Your task to perform on an android device: turn off improve location accuracy Image 0: 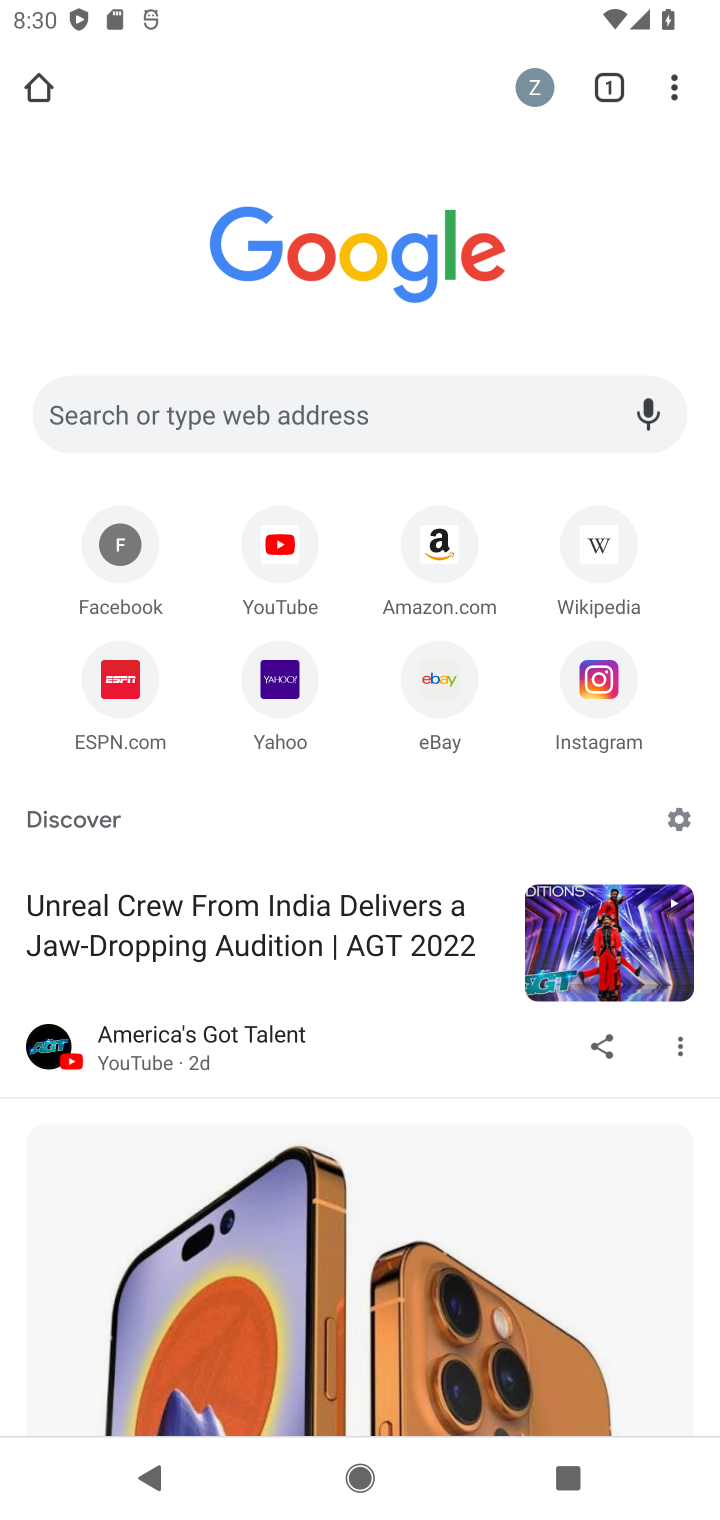
Step 0: drag from (375, 1057) to (671, 1512)
Your task to perform on an android device: turn off improve location accuracy Image 1: 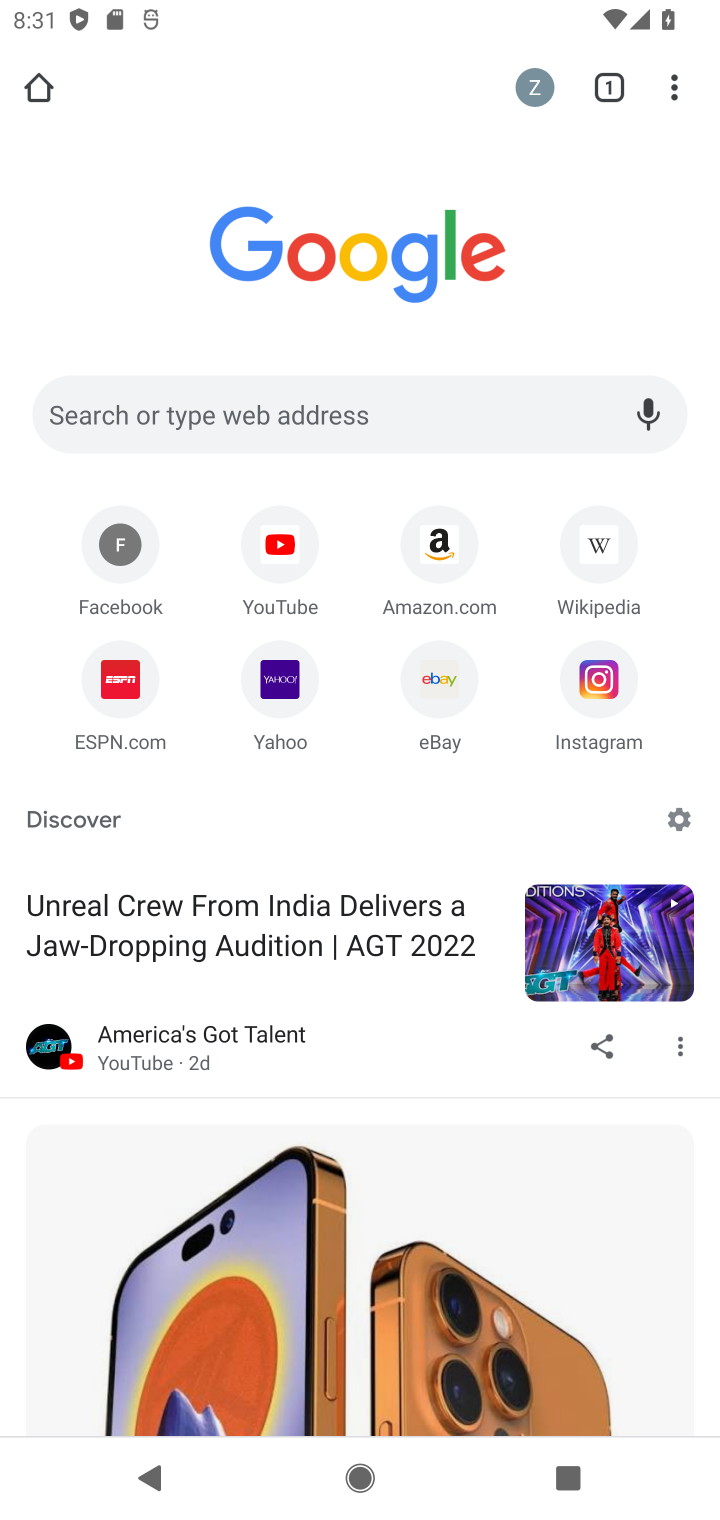
Step 1: drag from (673, 83) to (449, 847)
Your task to perform on an android device: turn off improve location accuracy Image 2: 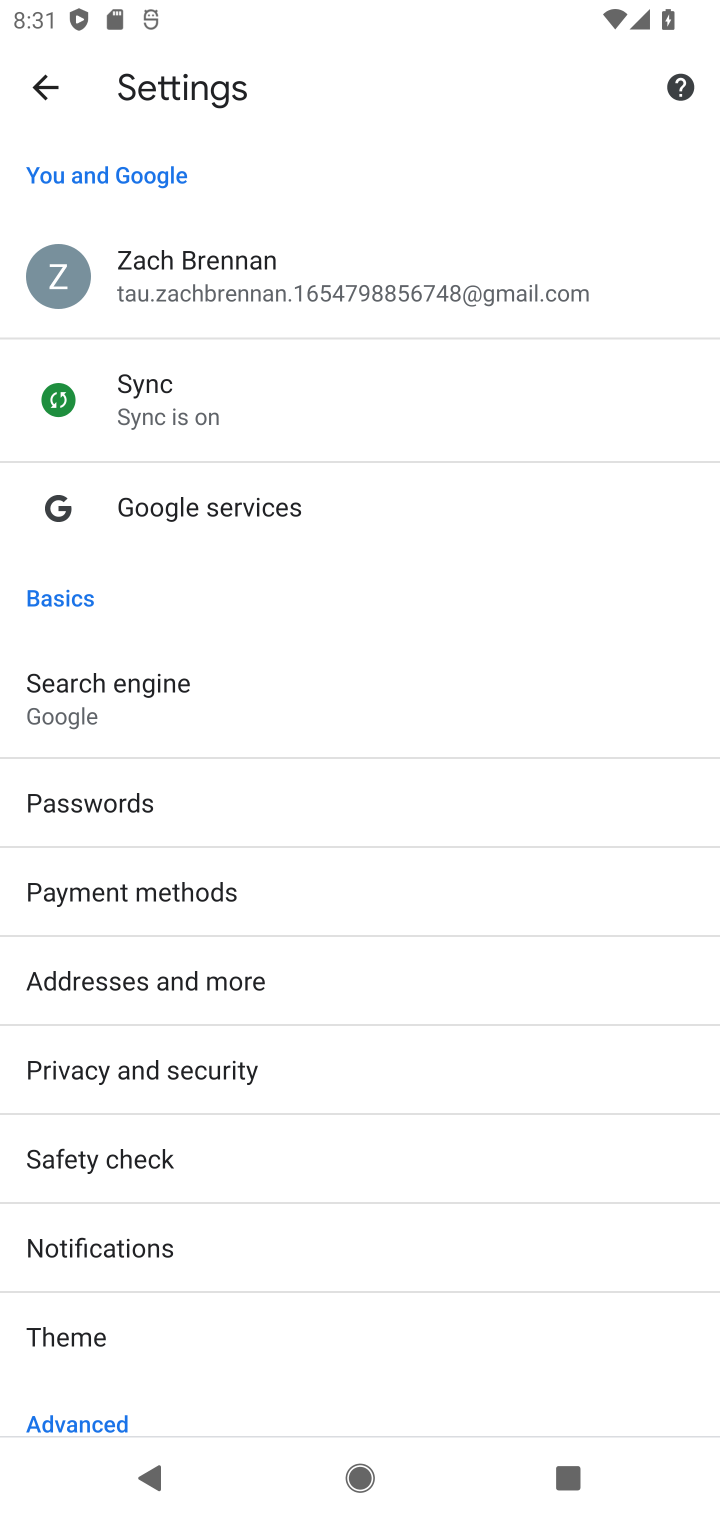
Step 2: press home button
Your task to perform on an android device: turn off improve location accuracy Image 3: 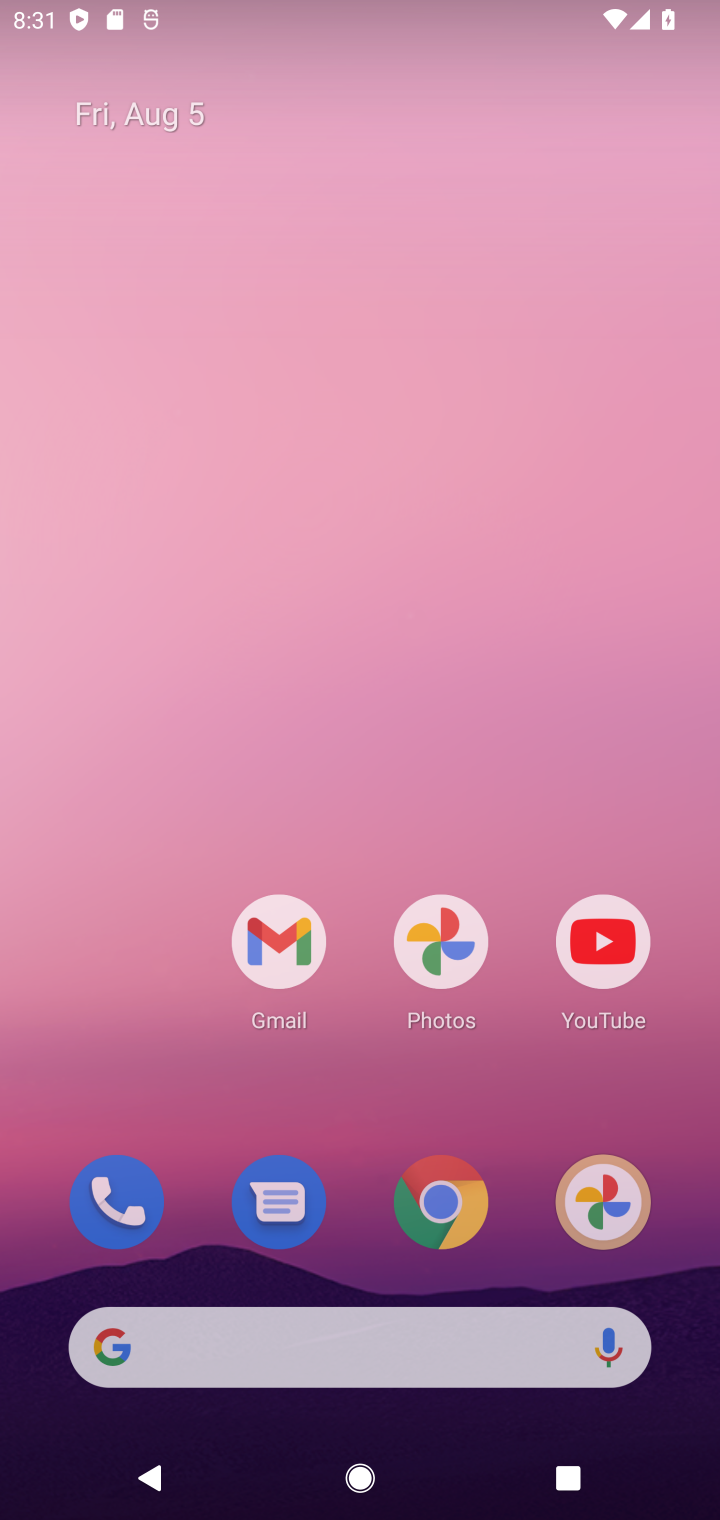
Step 3: drag from (313, 1222) to (458, 352)
Your task to perform on an android device: turn off improve location accuracy Image 4: 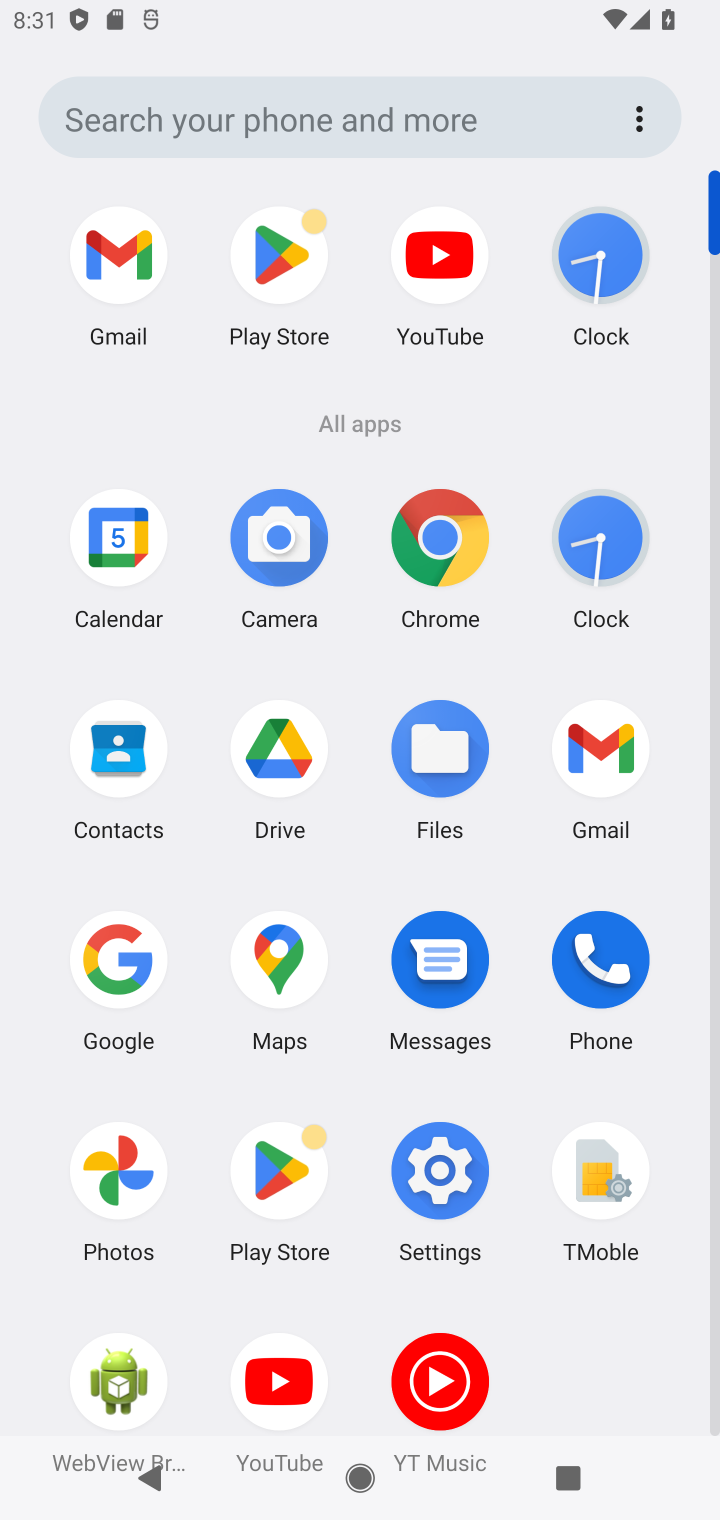
Step 4: click (406, 1156)
Your task to perform on an android device: turn off improve location accuracy Image 5: 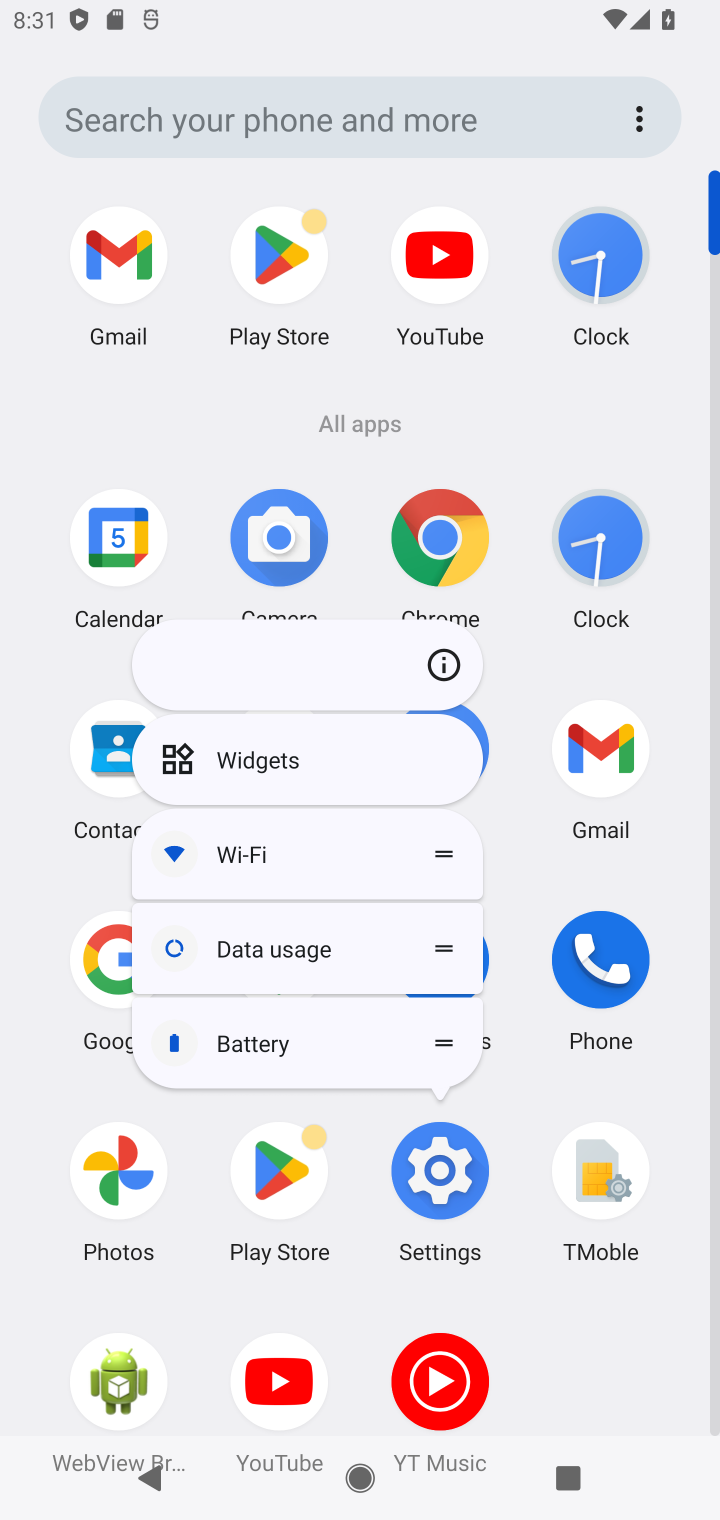
Step 5: click (440, 669)
Your task to perform on an android device: turn off improve location accuracy Image 6: 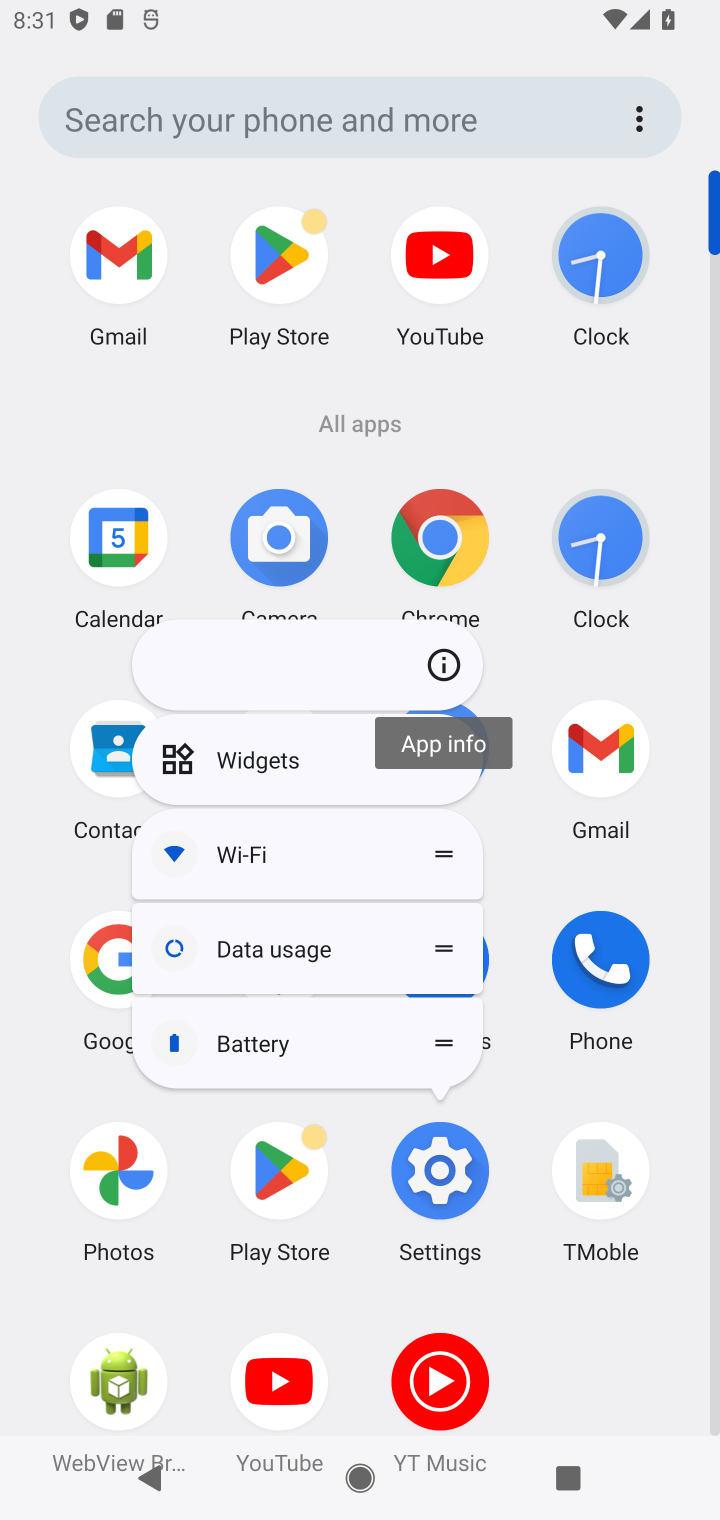
Step 6: click (433, 665)
Your task to perform on an android device: turn off improve location accuracy Image 7: 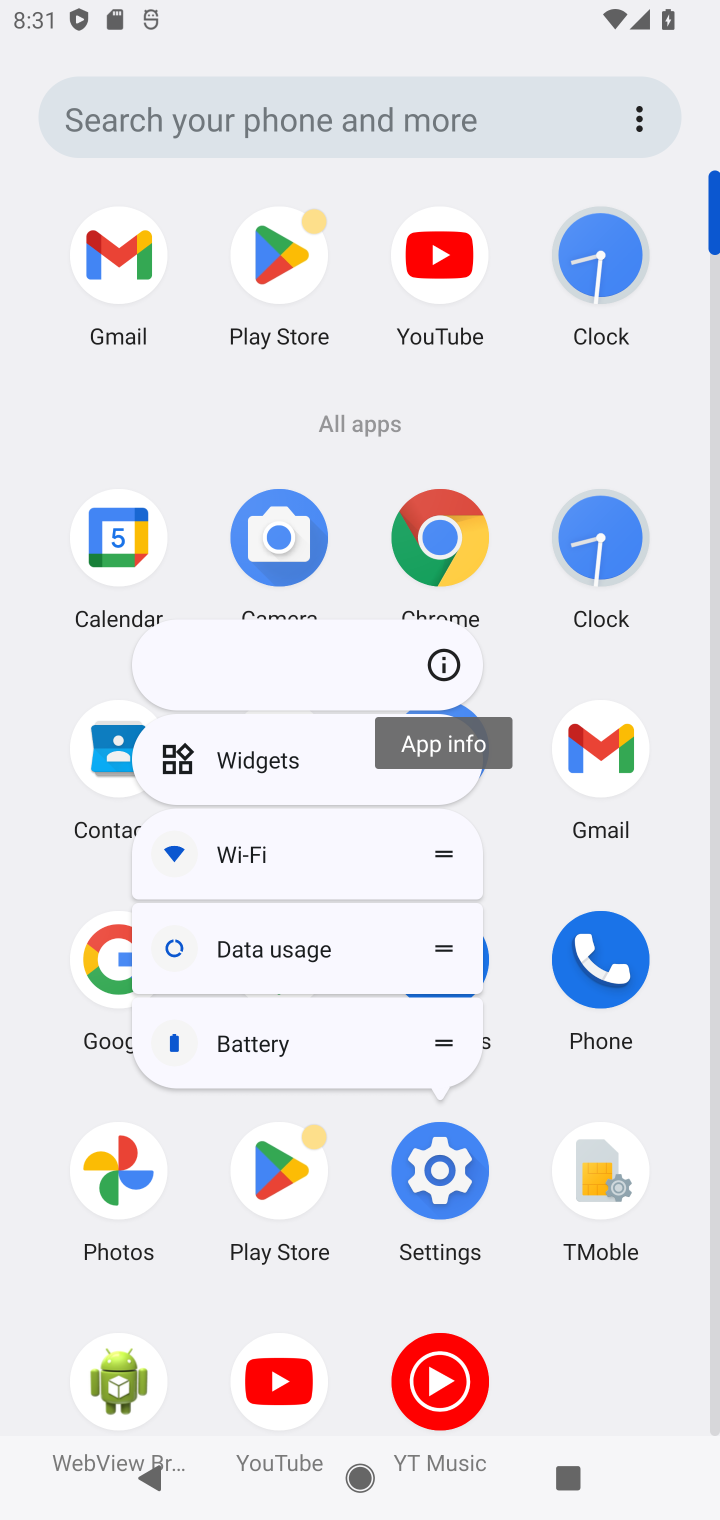
Step 7: click (435, 663)
Your task to perform on an android device: turn off improve location accuracy Image 8: 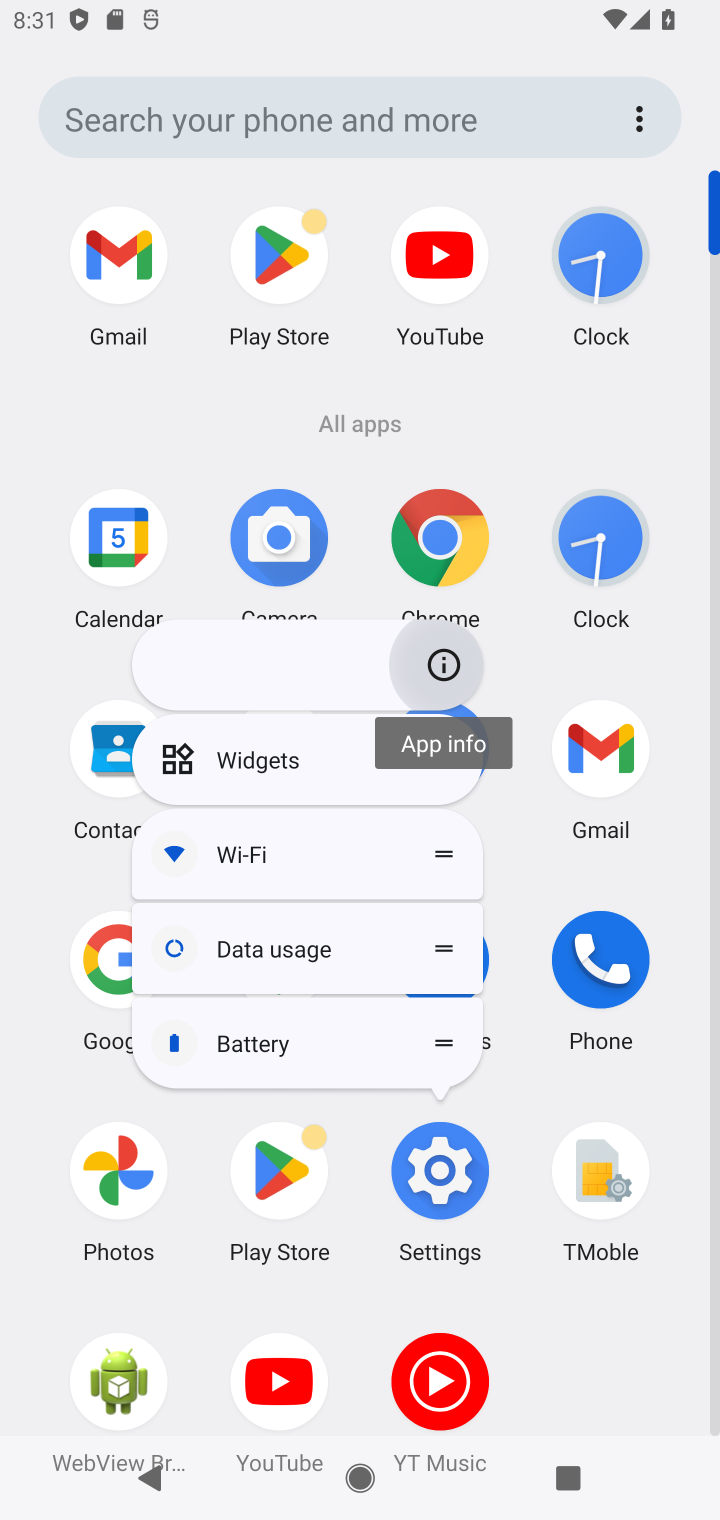
Step 8: click (435, 663)
Your task to perform on an android device: turn off improve location accuracy Image 9: 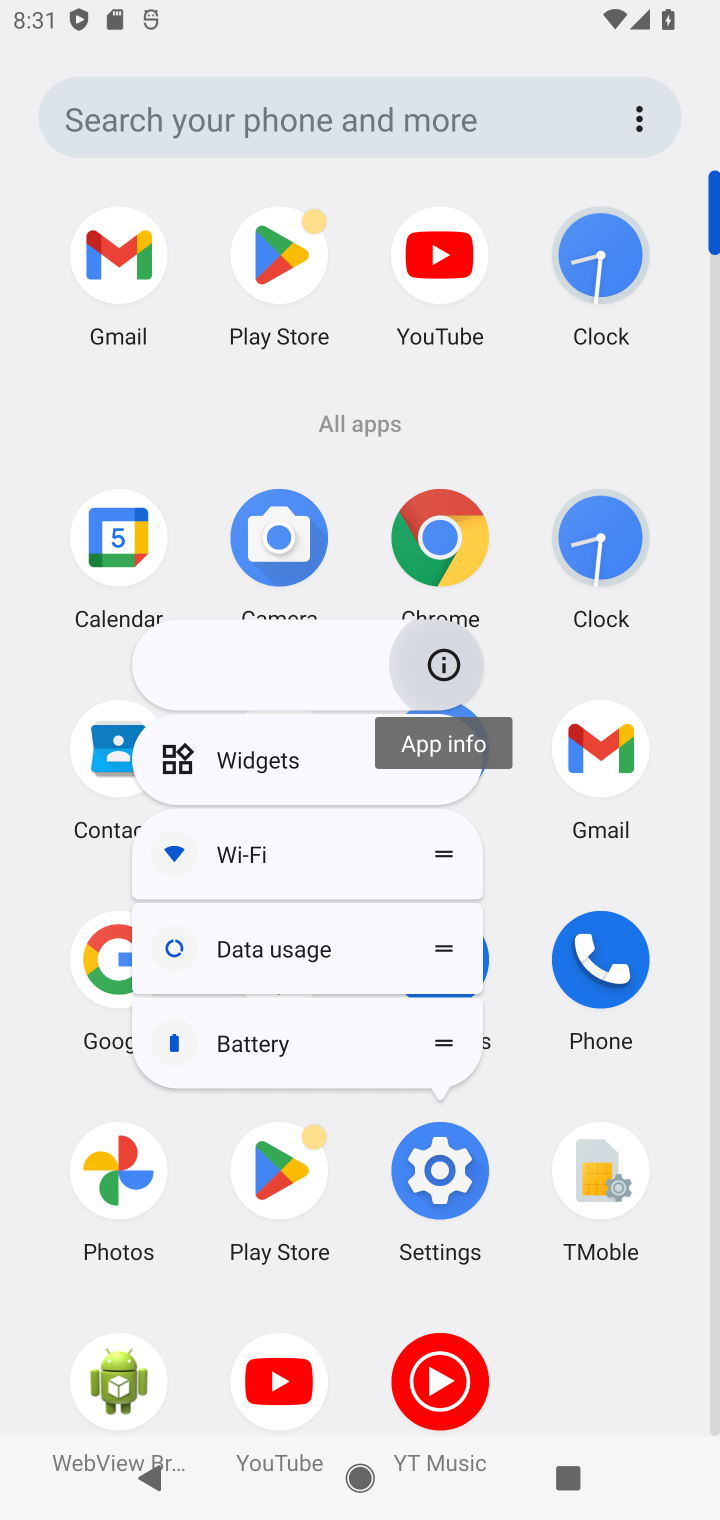
Step 9: click (435, 663)
Your task to perform on an android device: turn off improve location accuracy Image 10: 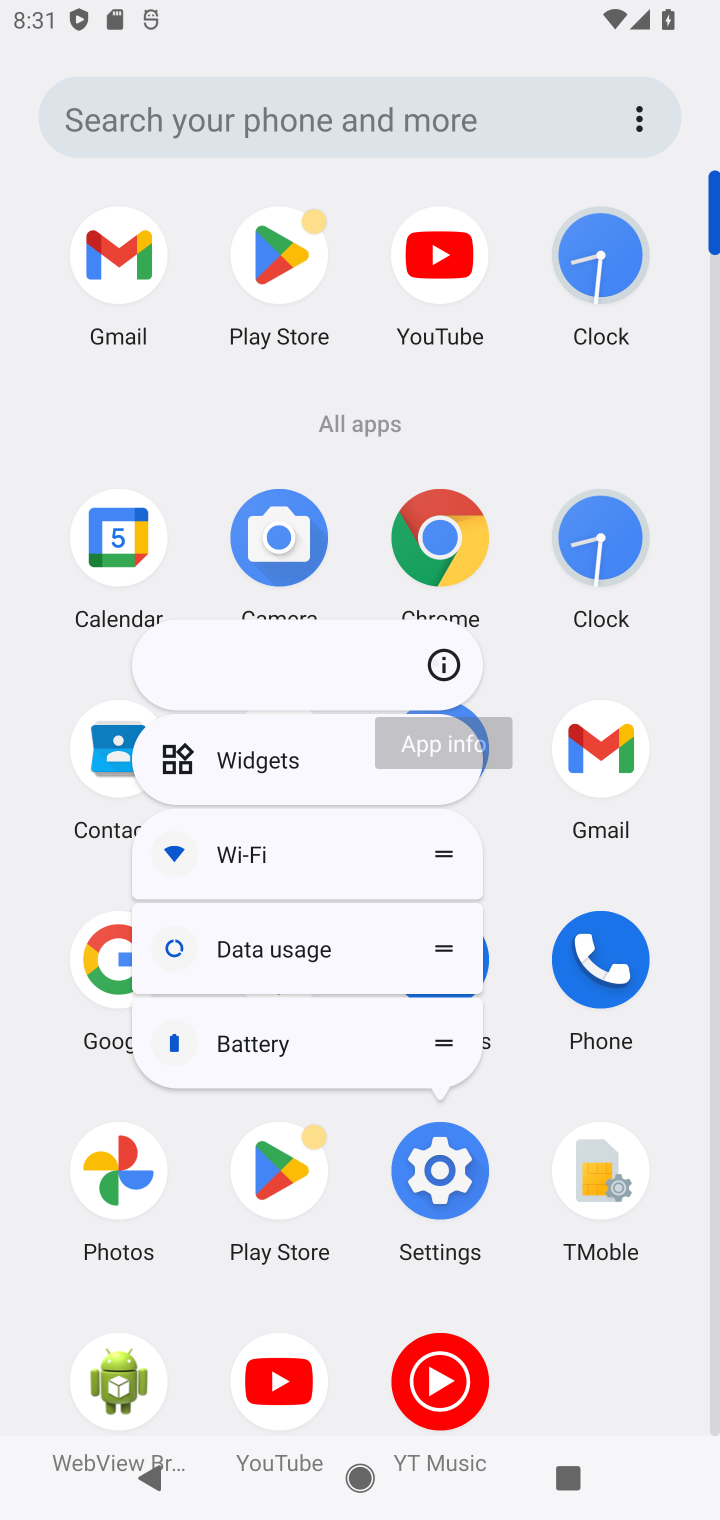
Step 10: click (435, 663)
Your task to perform on an android device: turn off improve location accuracy Image 11: 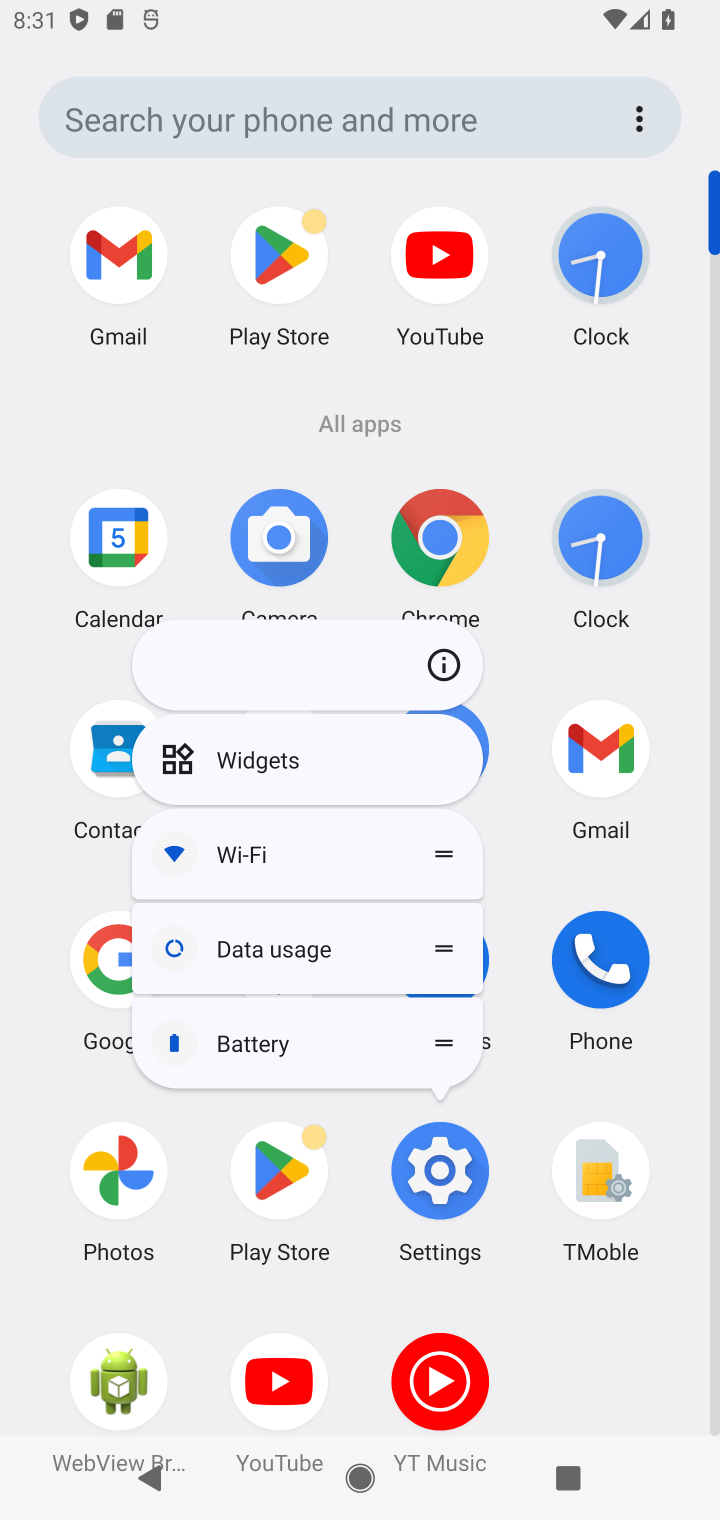
Step 11: click (433, 1166)
Your task to perform on an android device: turn off improve location accuracy Image 12: 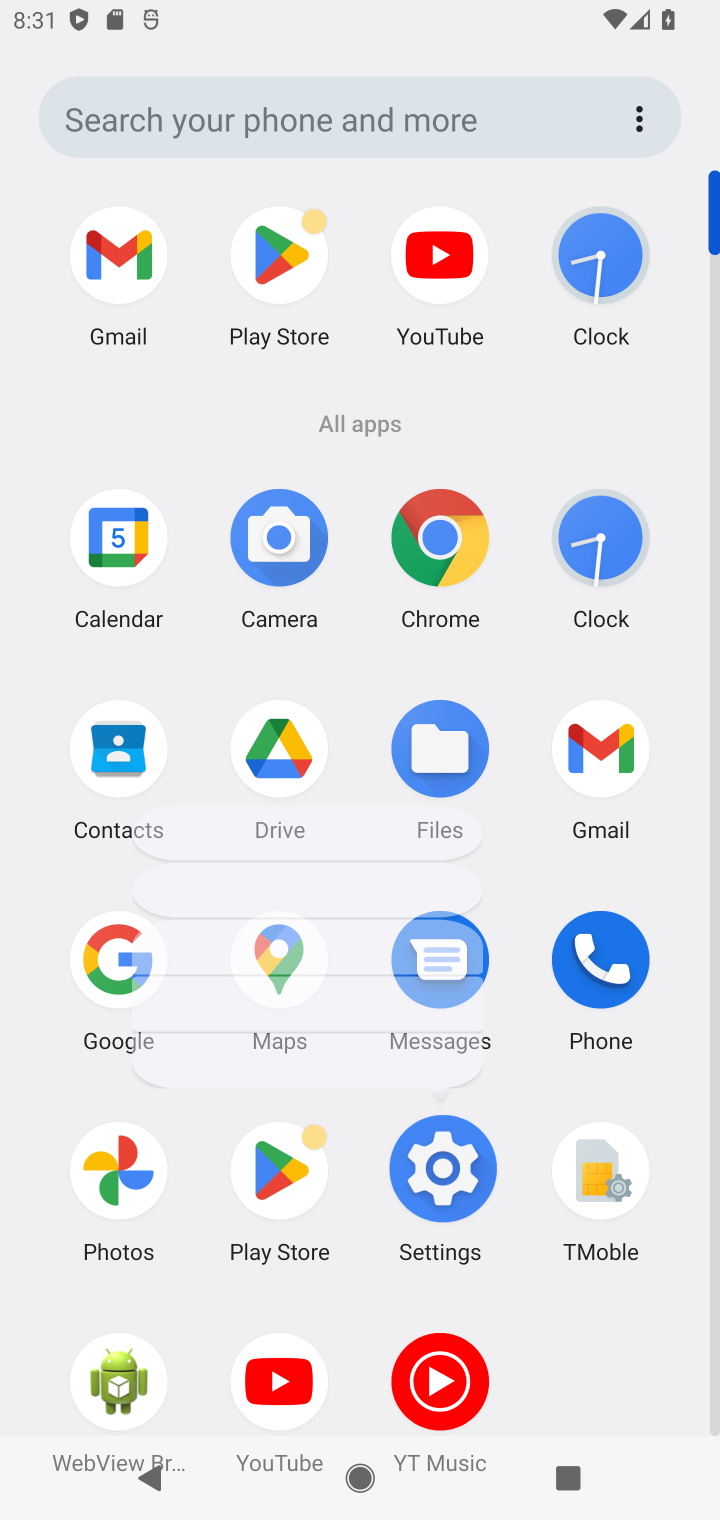
Step 12: click (438, 1159)
Your task to perform on an android device: turn off improve location accuracy Image 13: 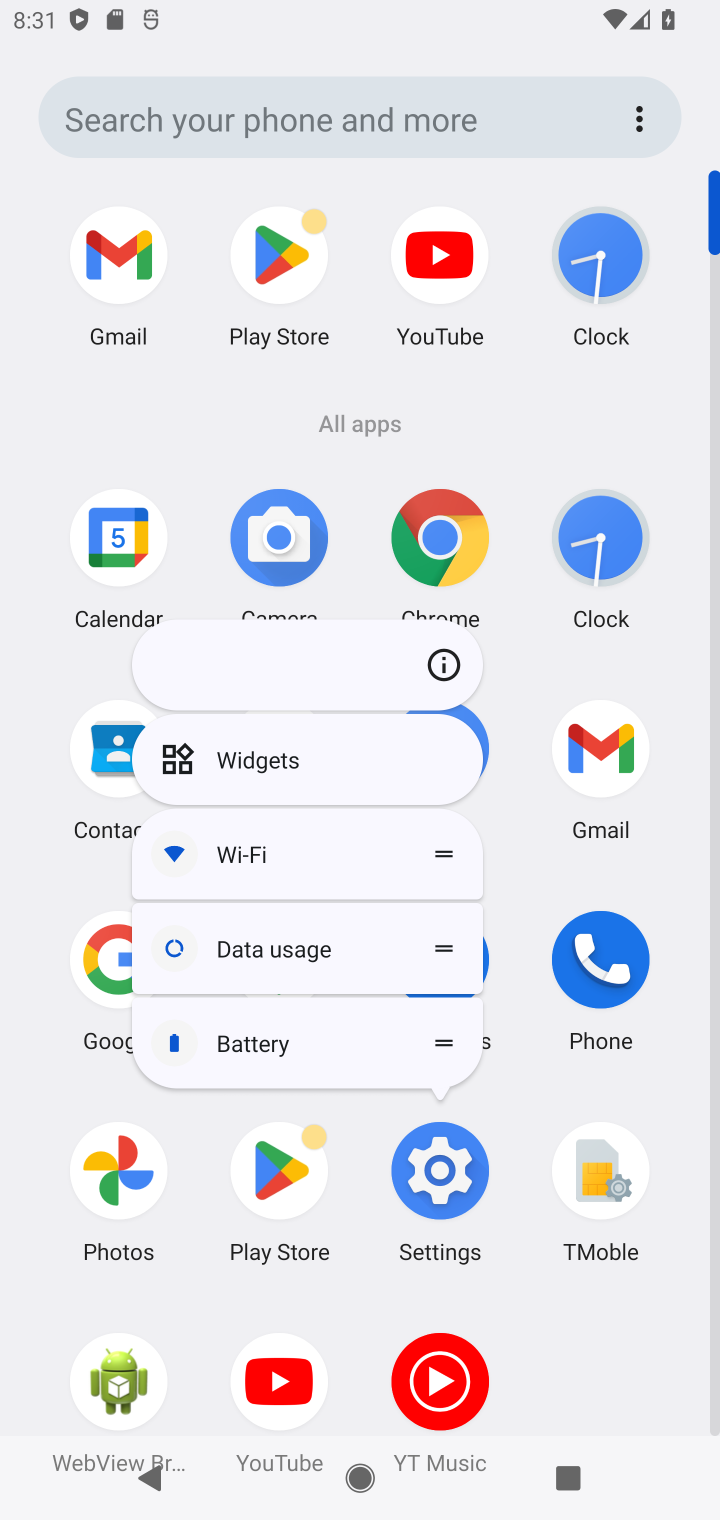
Step 13: click (441, 651)
Your task to perform on an android device: turn off improve location accuracy Image 14: 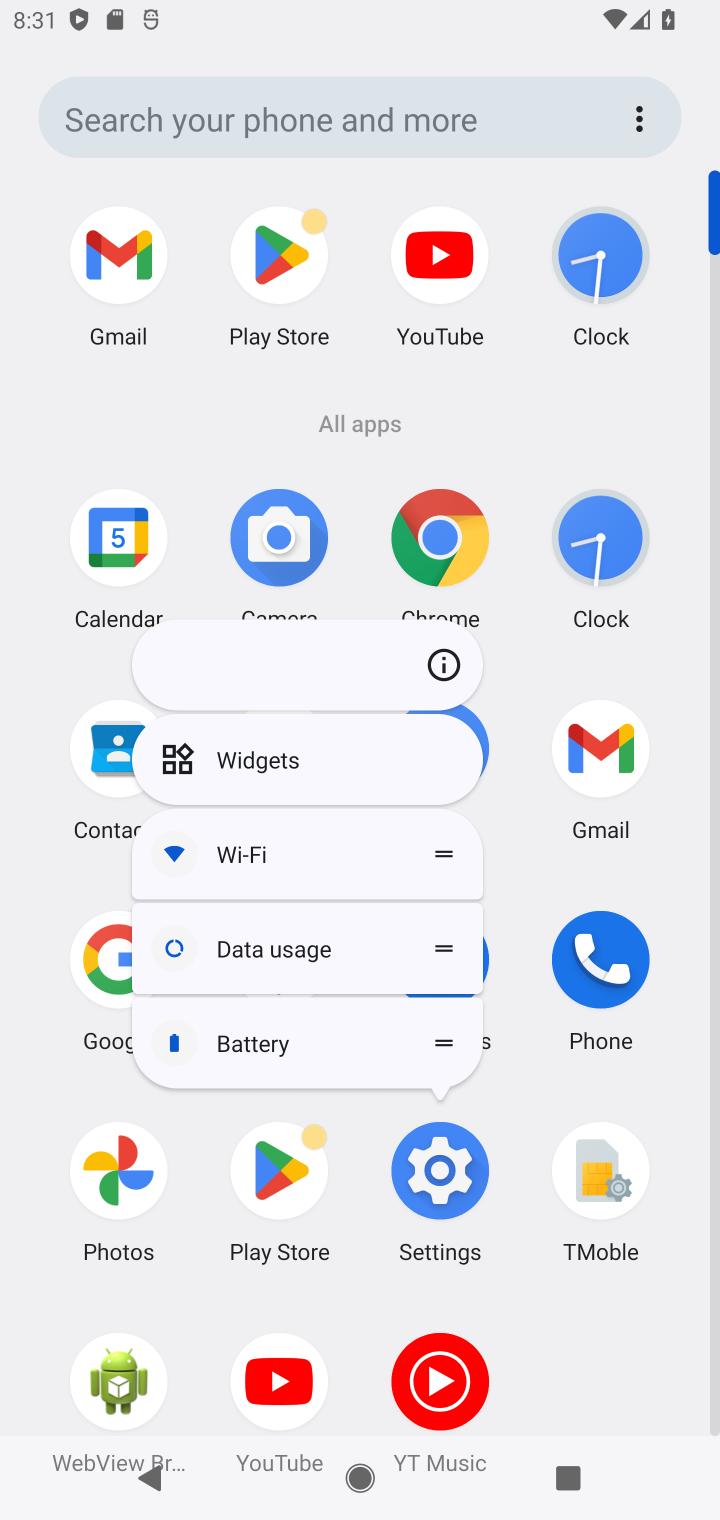
Step 14: click (440, 674)
Your task to perform on an android device: turn off improve location accuracy Image 15: 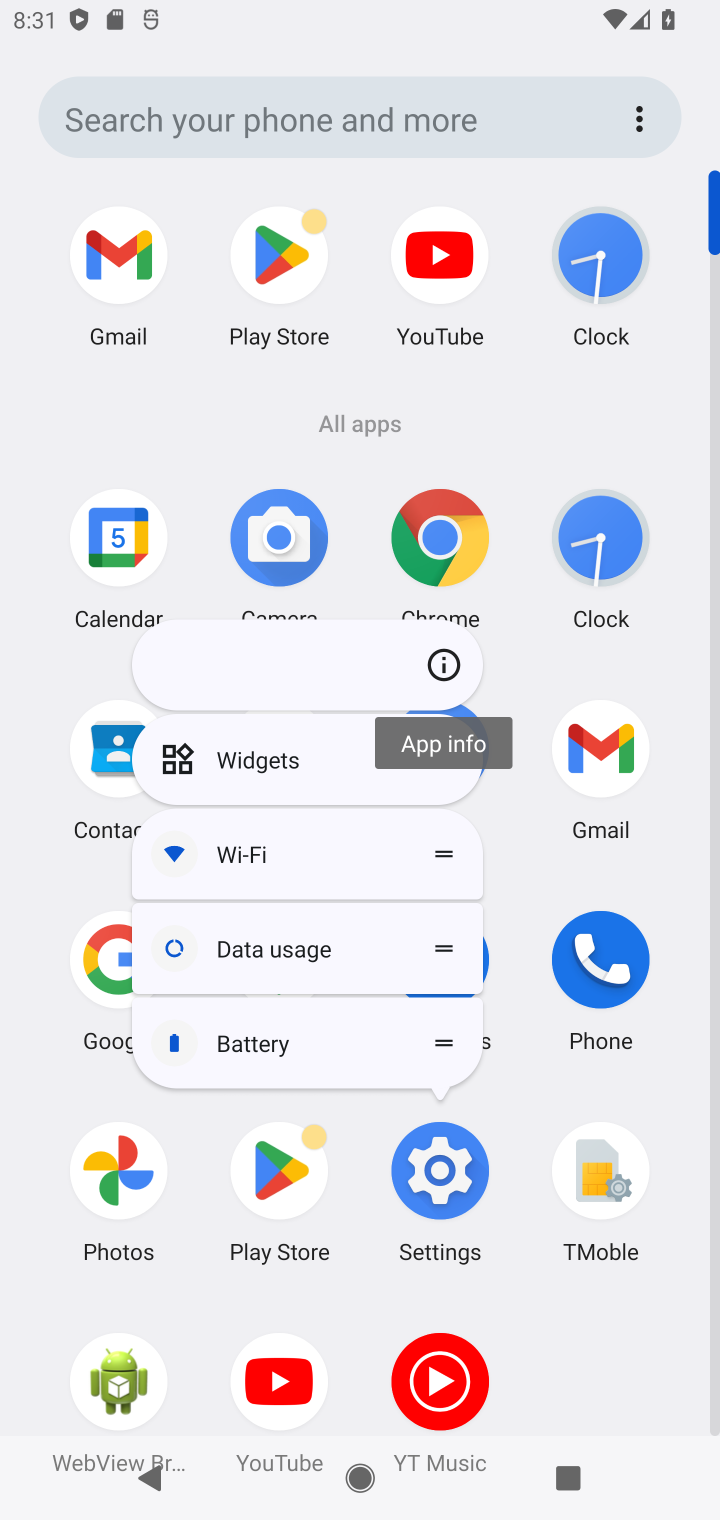
Step 15: click (430, 665)
Your task to perform on an android device: turn off improve location accuracy Image 16: 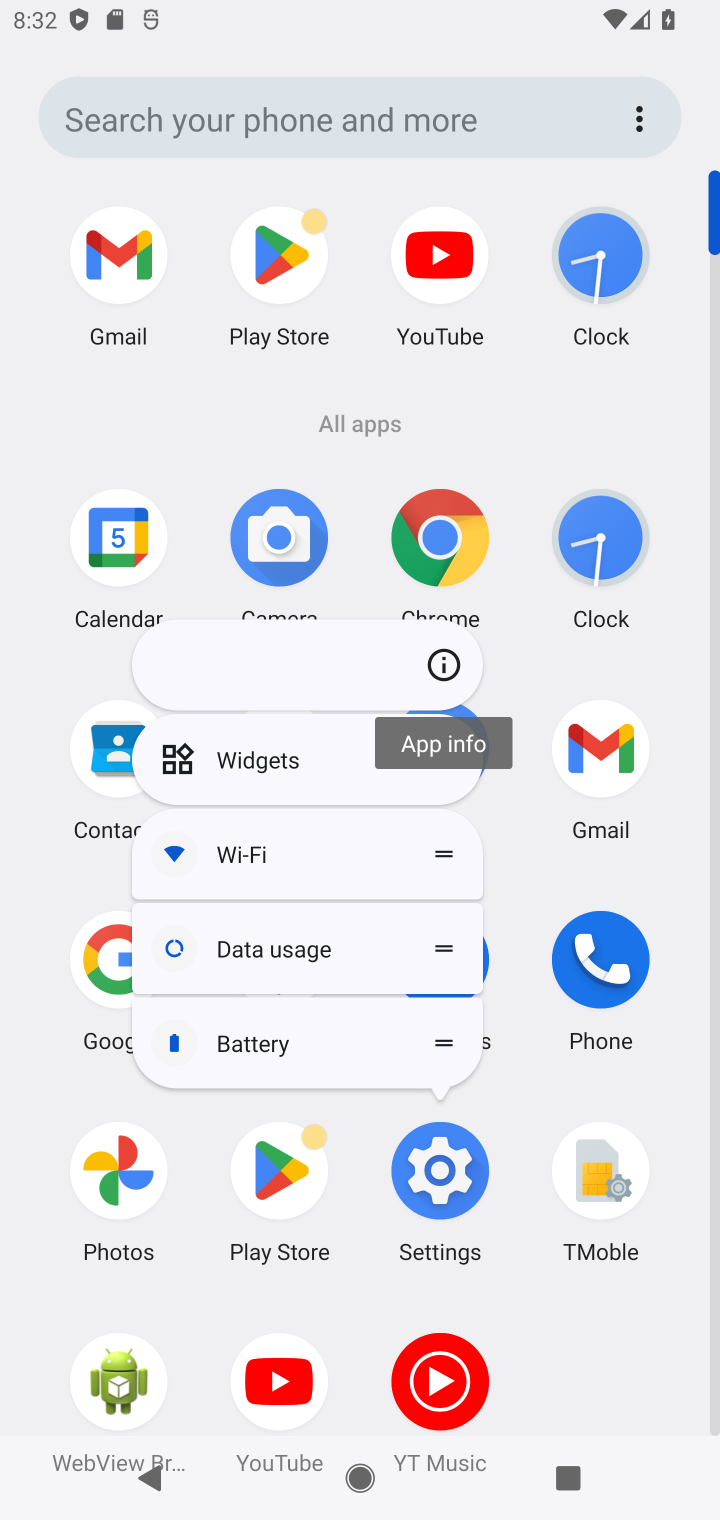
Step 16: click (434, 663)
Your task to perform on an android device: turn off improve location accuracy Image 17: 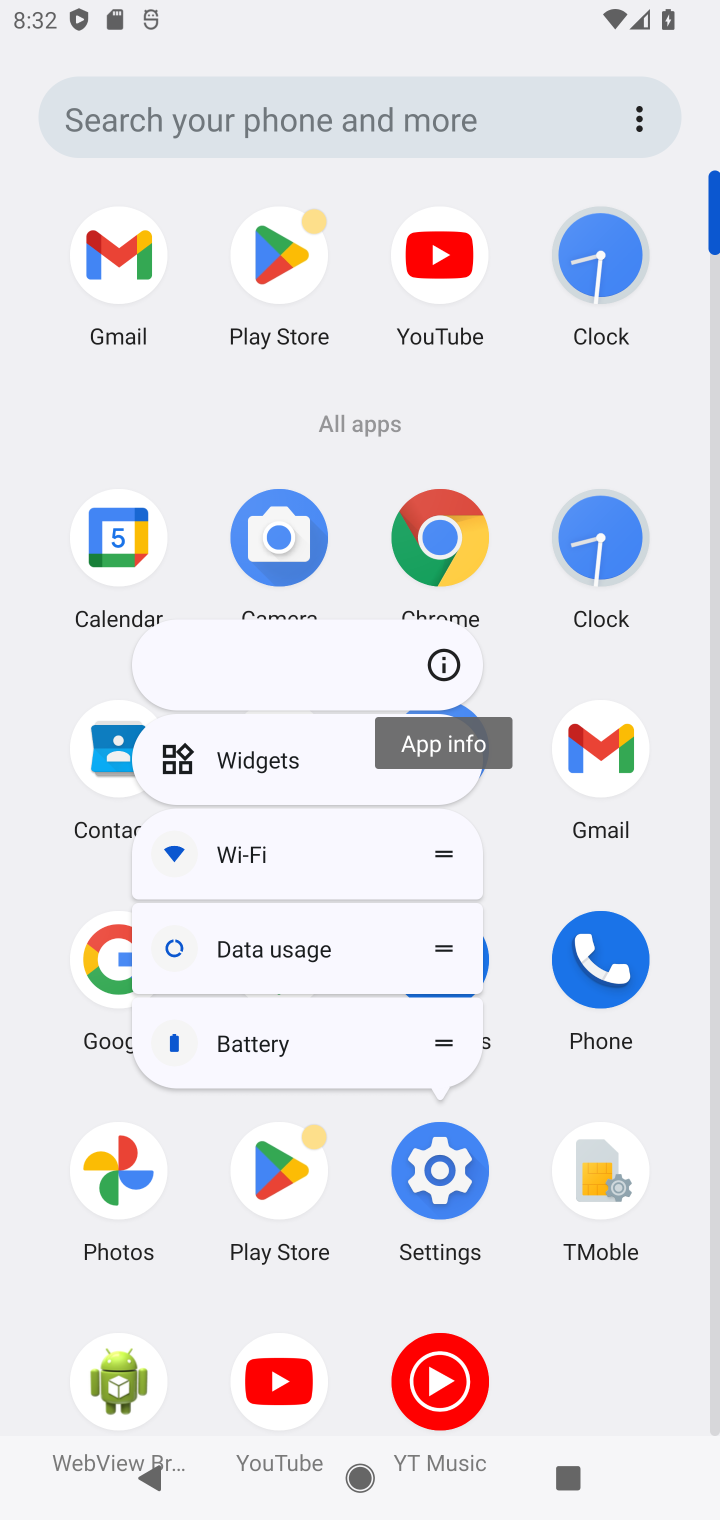
Step 17: click (434, 663)
Your task to perform on an android device: turn off improve location accuracy Image 18: 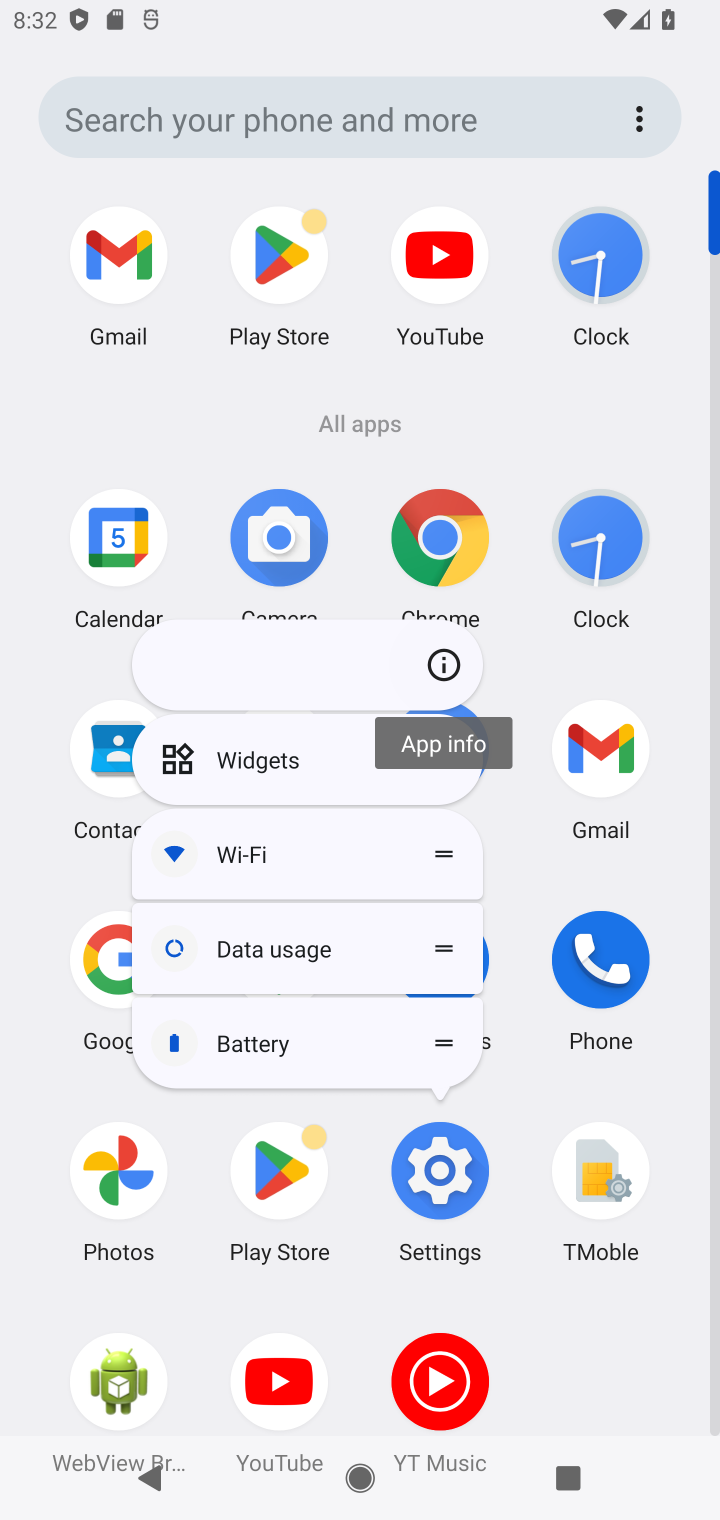
Step 18: click (436, 661)
Your task to perform on an android device: turn off improve location accuracy Image 19: 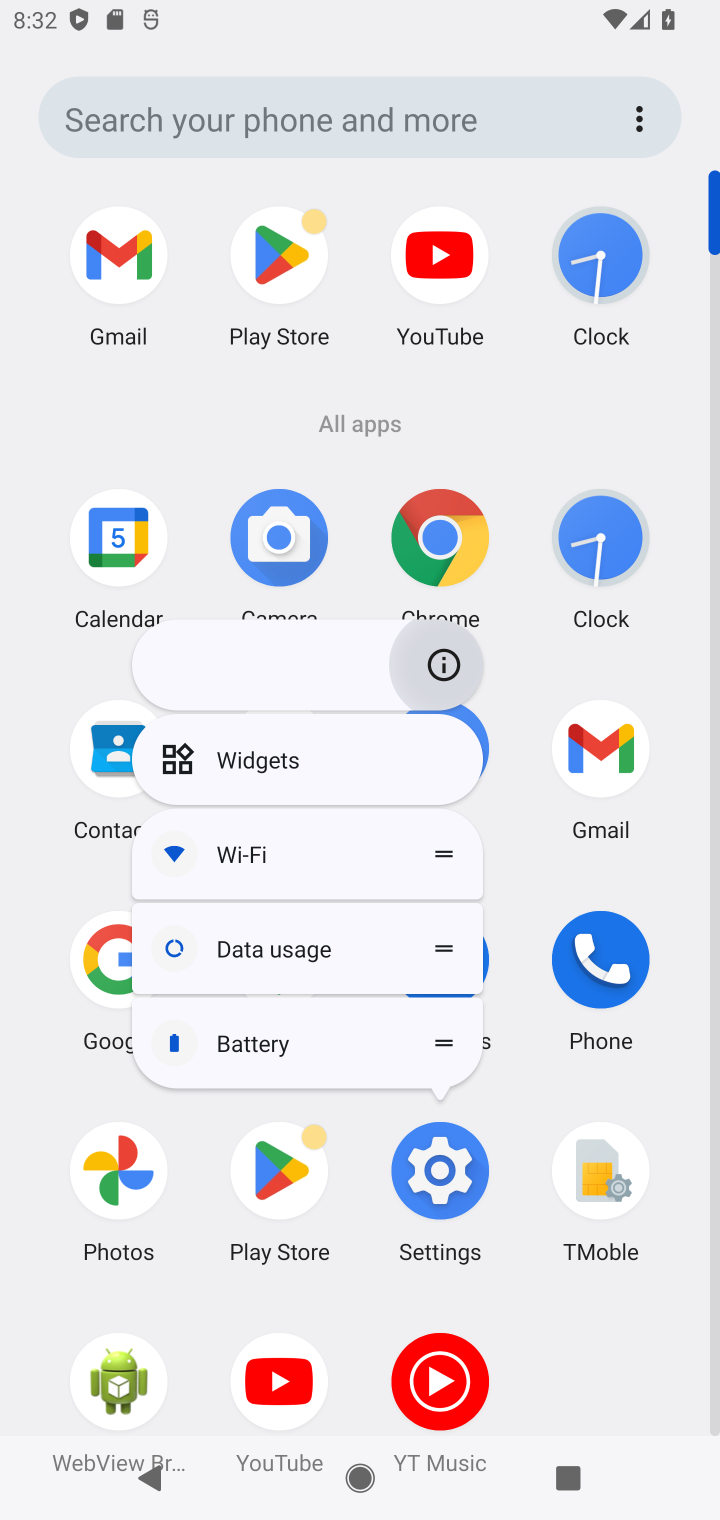
Step 19: click (436, 661)
Your task to perform on an android device: turn off improve location accuracy Image 20: 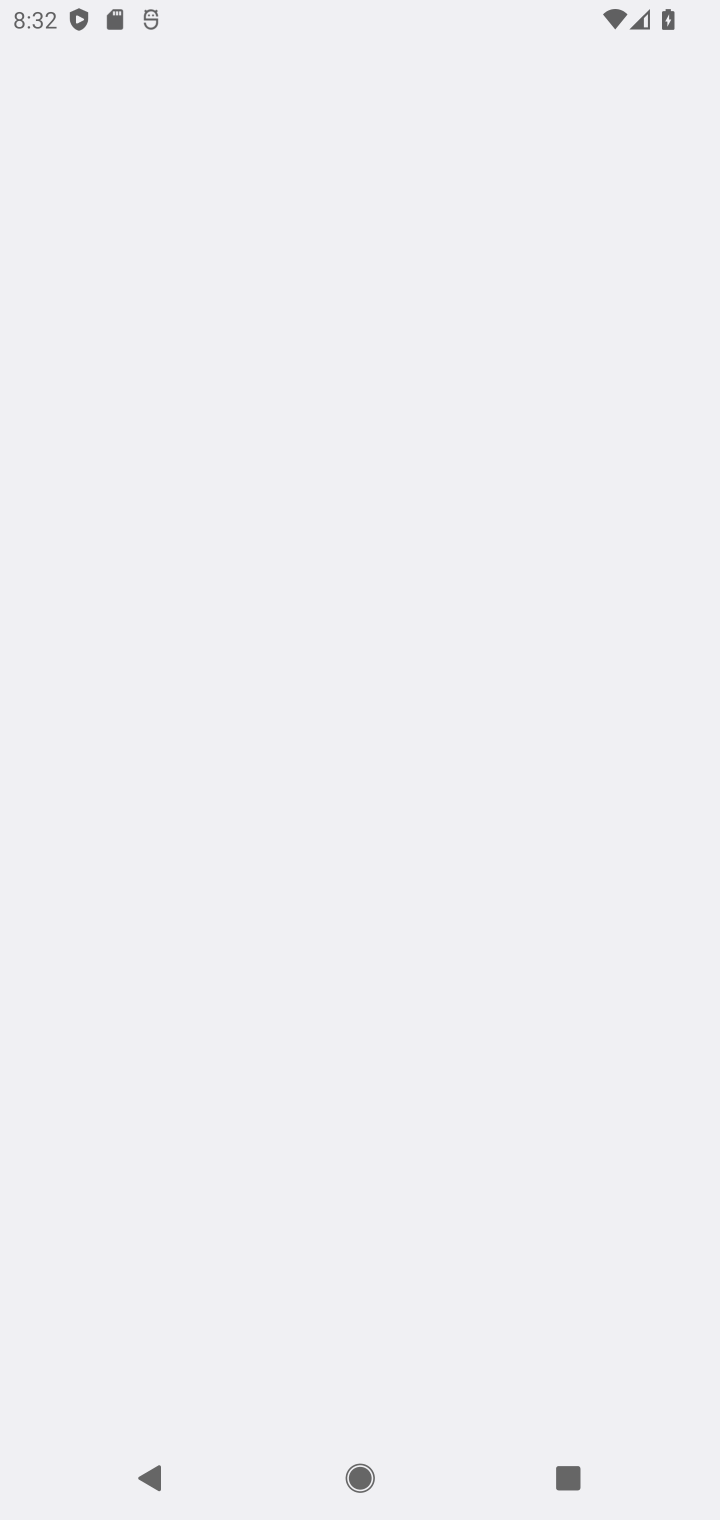
Step 20: click (436, 661)
Your task to perform on an android device: turn off improve location accuracy Image 21: 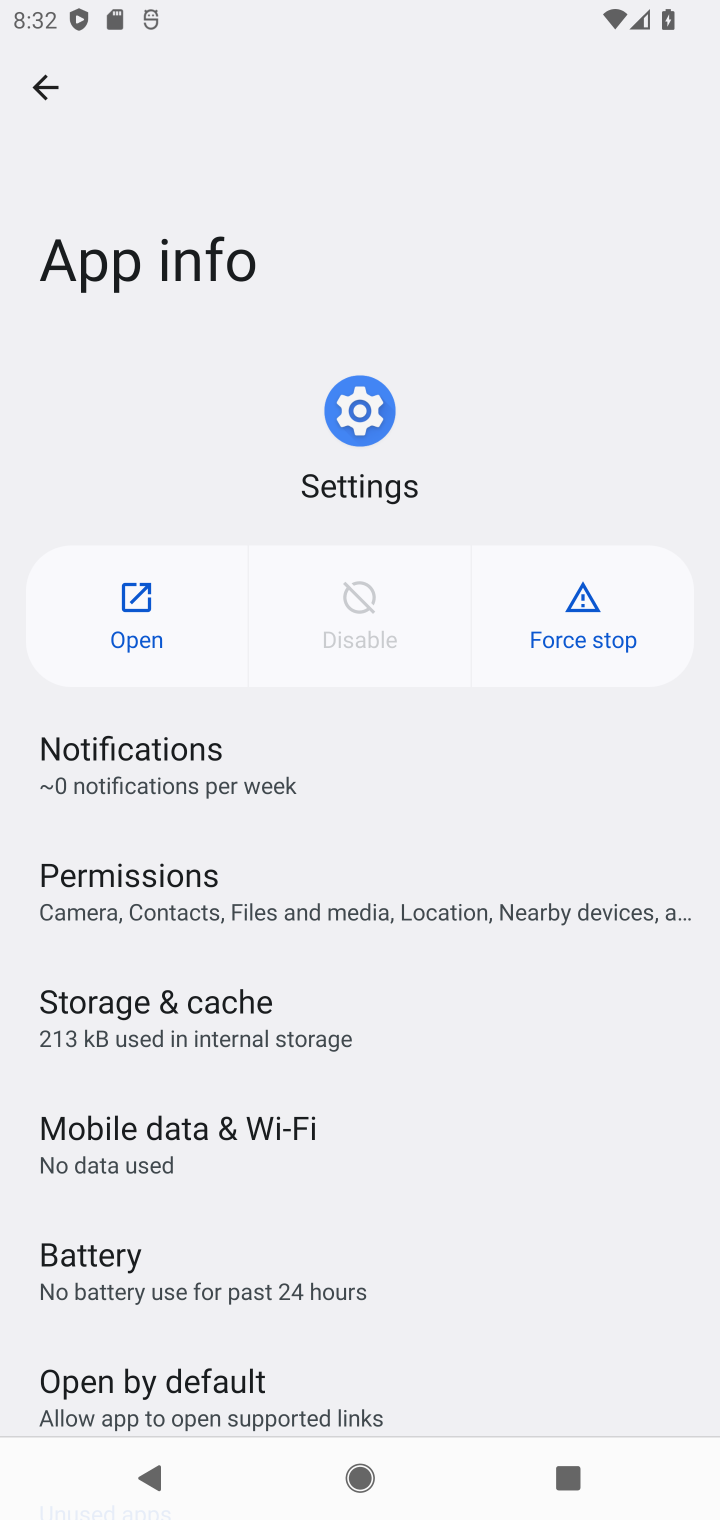
Step 21: click (138, 598)
Your task to perform on an android device: turn off improve location accuracy Image 22: 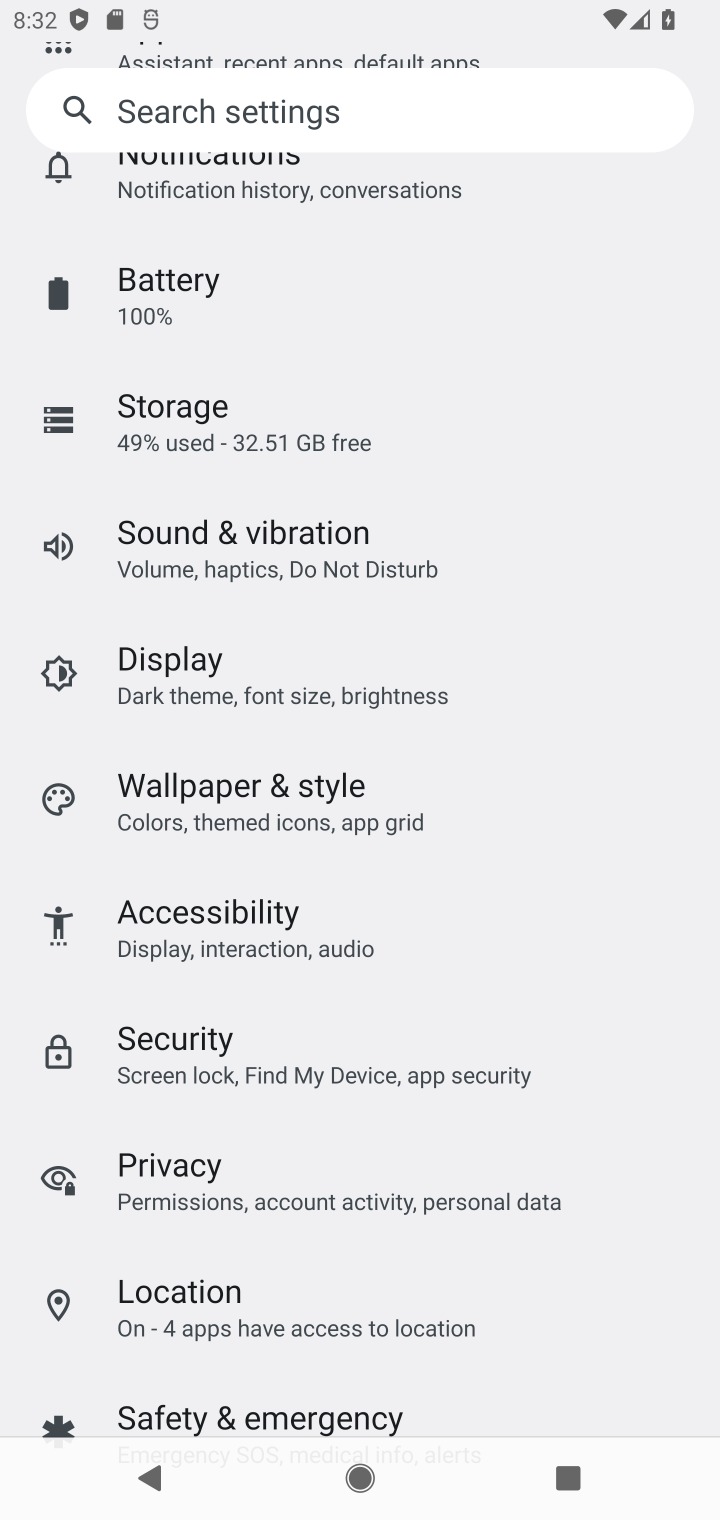
Step 22: drag from (310, 440) to (303, 1517)
Your task to perform on an android device: turn off improve location accuracy Image 23: 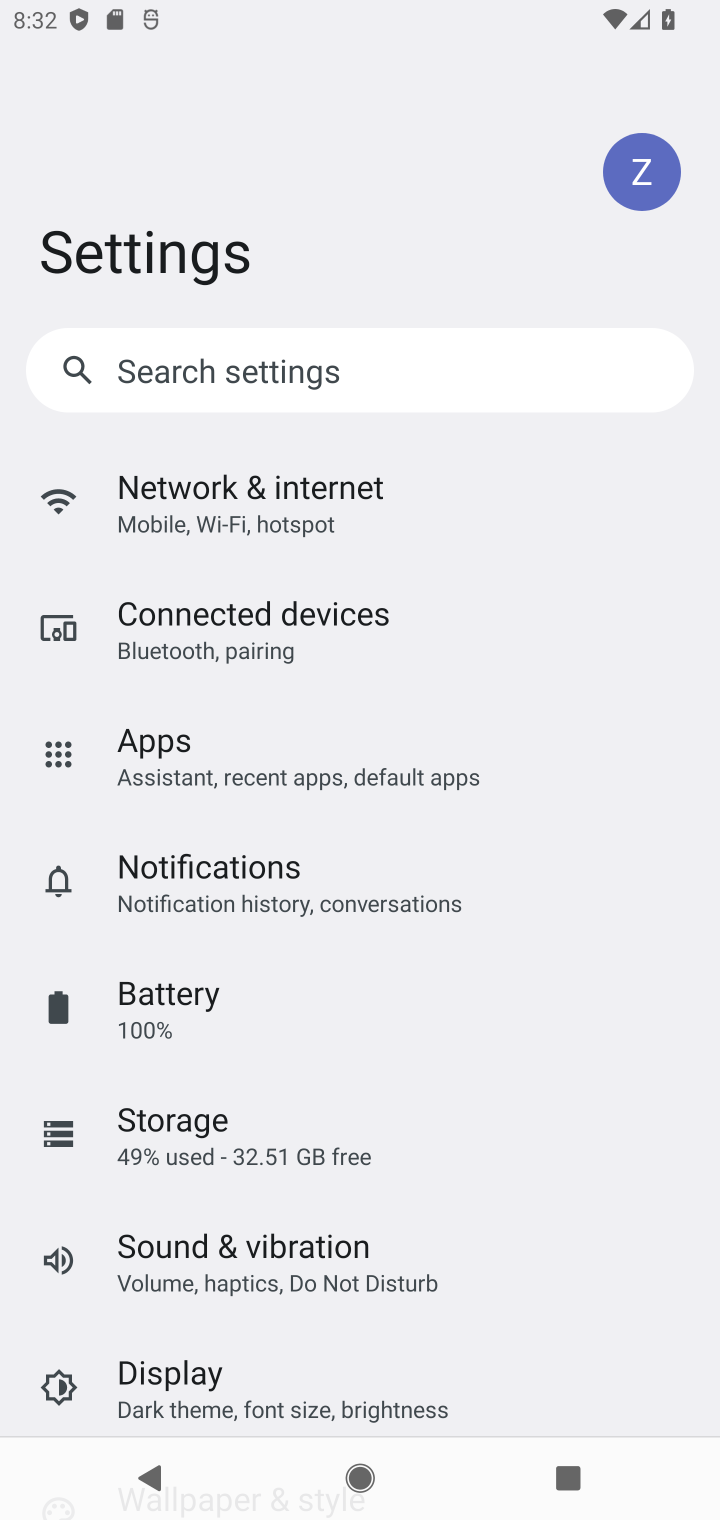
Step 23: click (245, 358)
Your task to perform on an android device: turn off improve location accuracy Image 24: 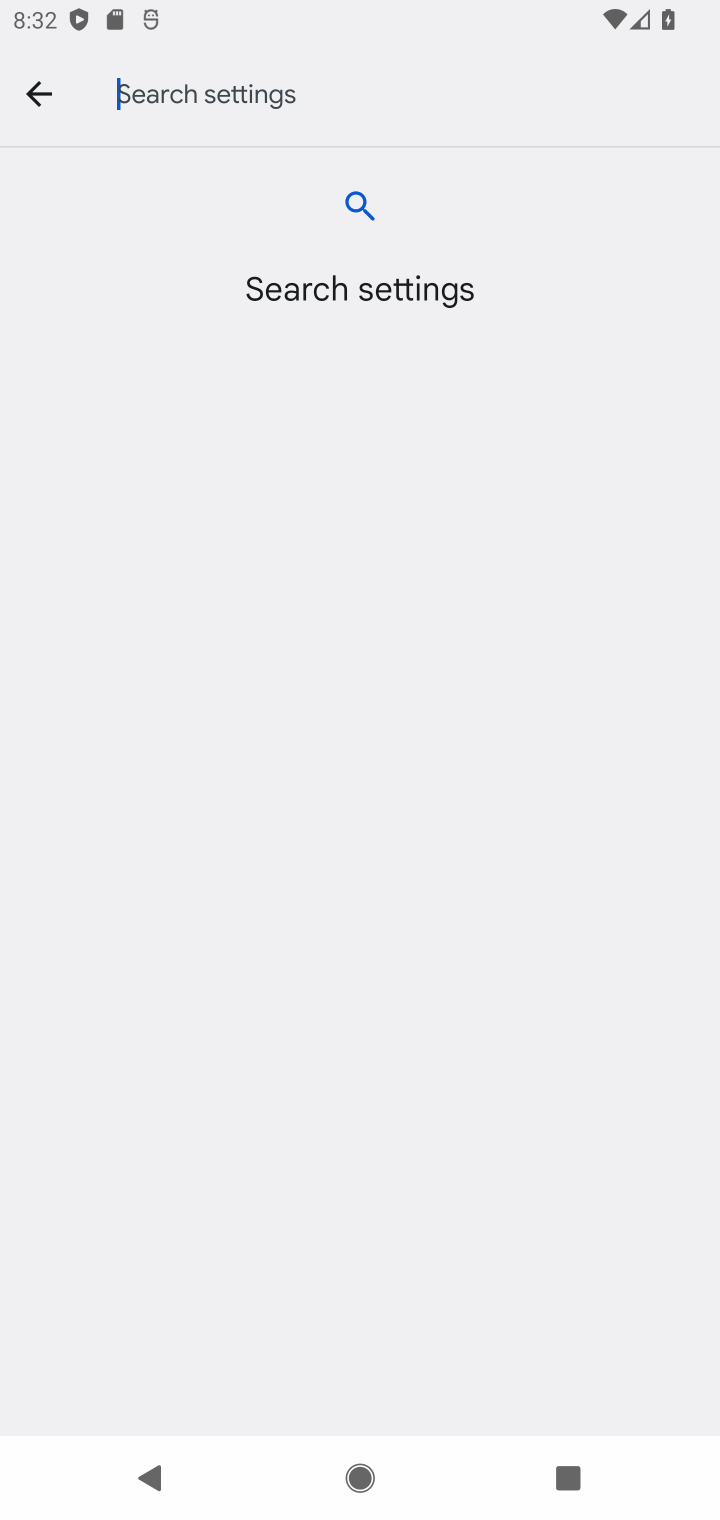
Step 24: click (36, 106)
Your task to perform on an android device: turn off improve location accuracy Image 25: 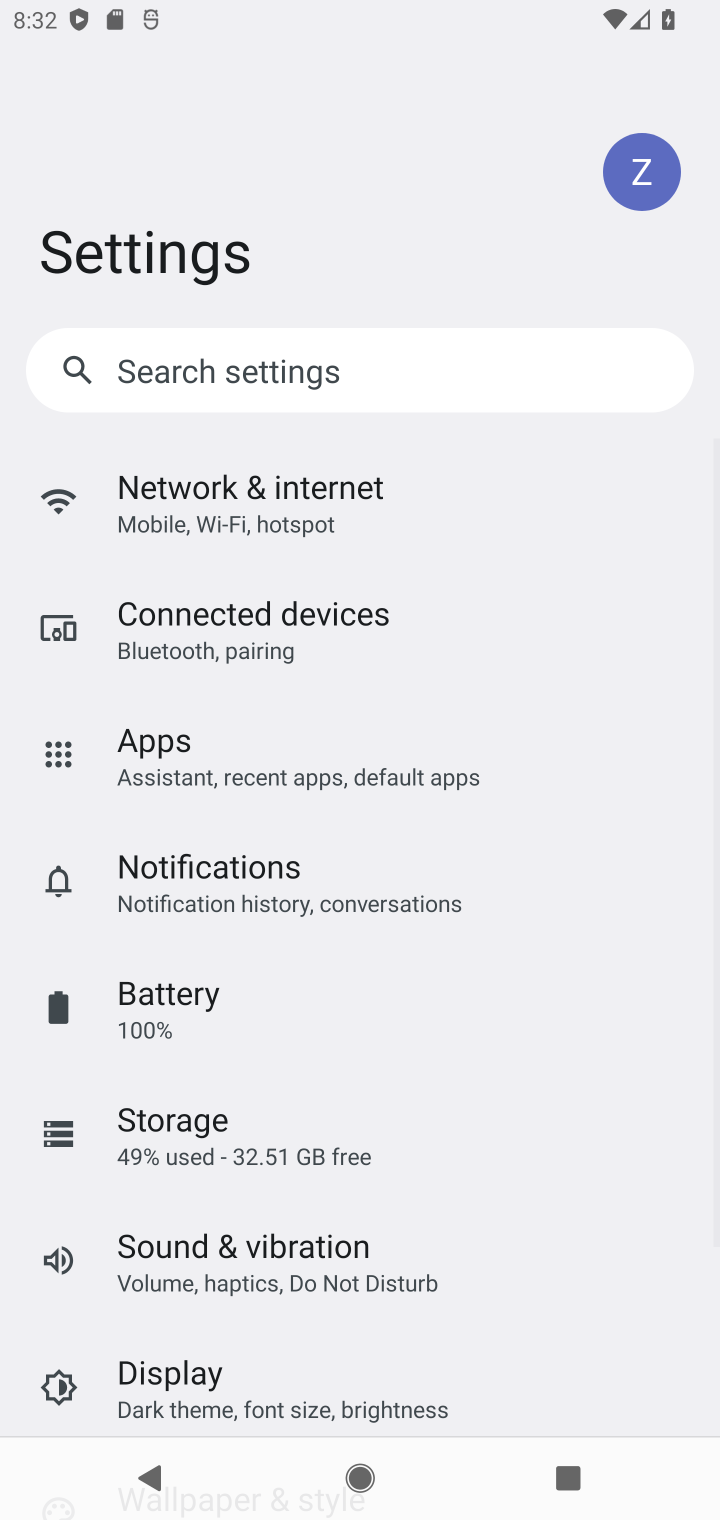
Step 25: drag from (304, 1479) to (413, 474)
Your task to perform on an android device: turn off improve location accuracy Image 26: 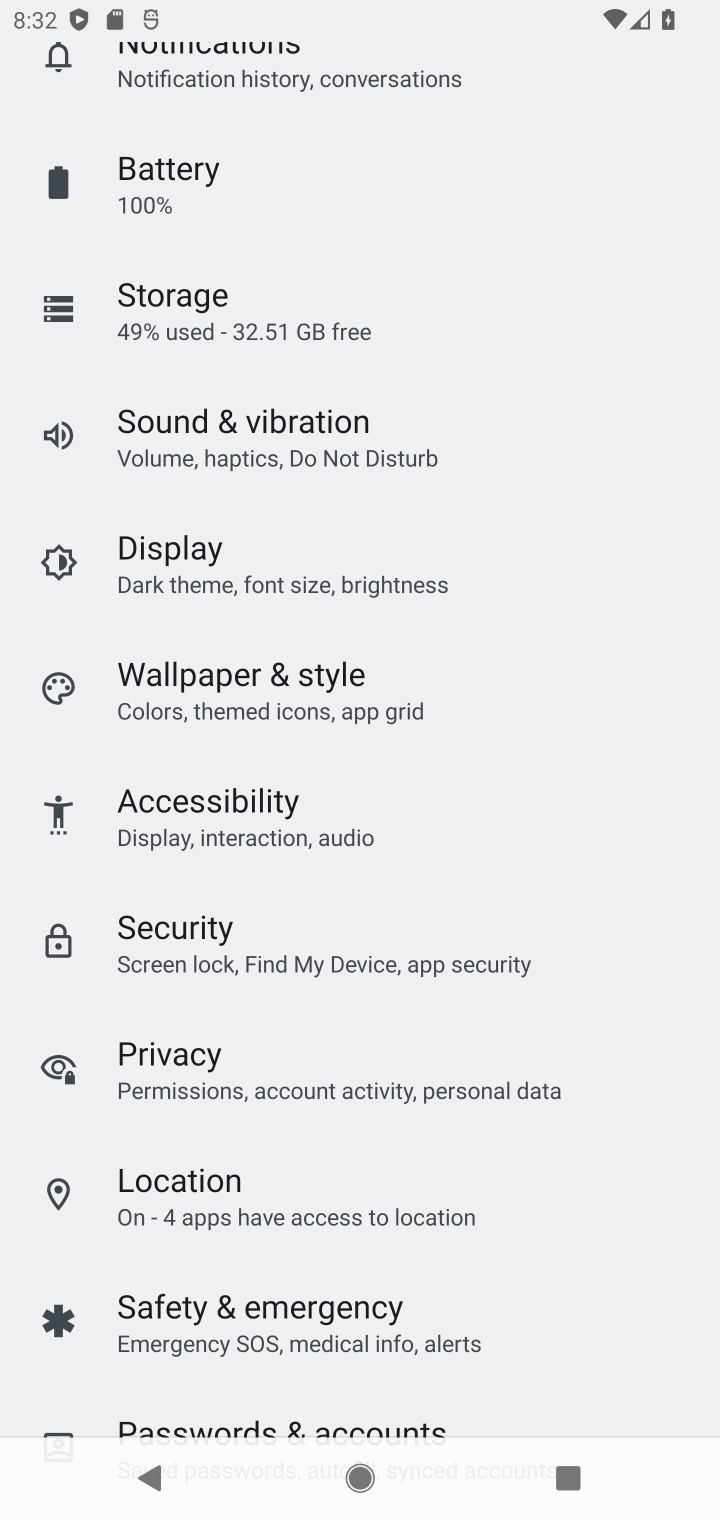
Step 26: drag from (364, 1046) to (440, 506)
Your task to perform on an android device: turn off improve location accuracy Image 27: 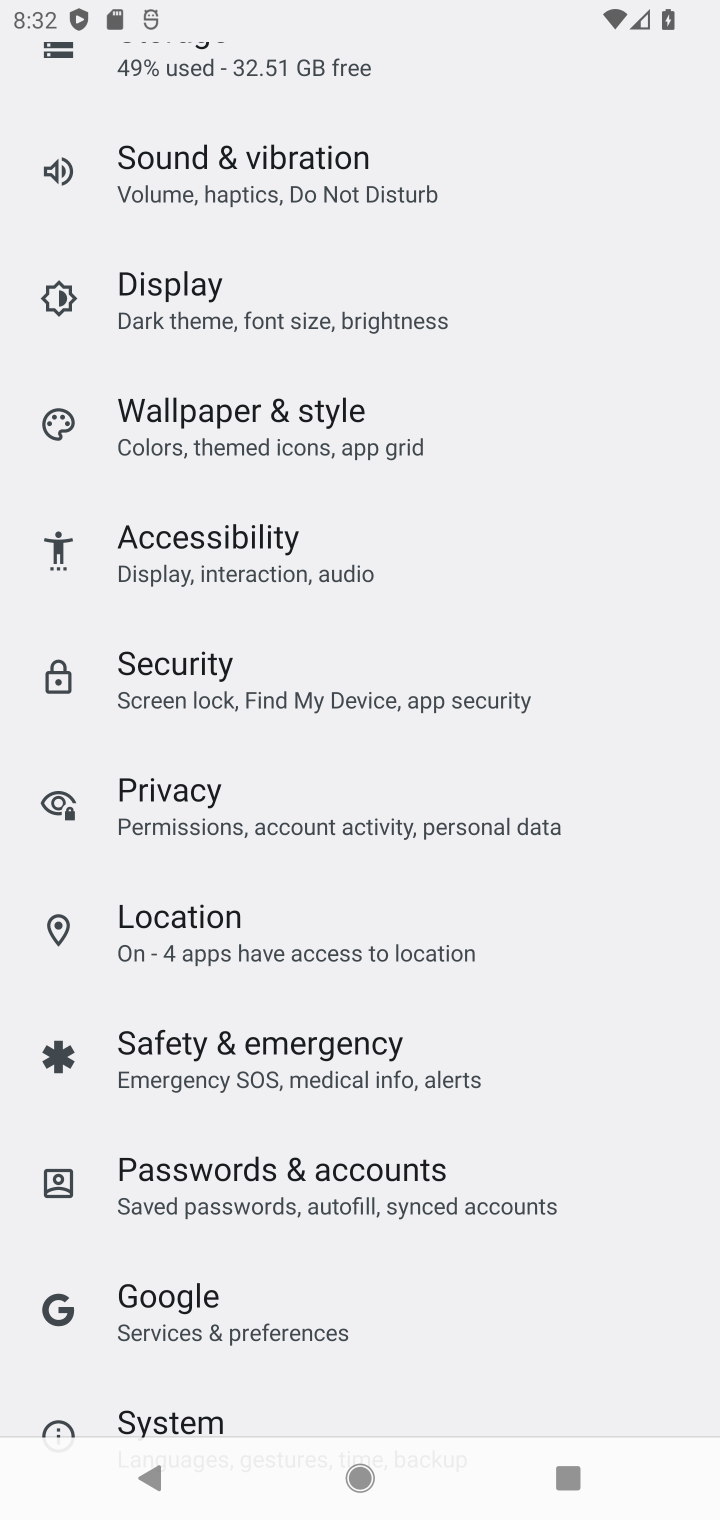
Step 27: click (251, 963)
Your task to perform on an android device: turn off improve location accuracy Image 28: 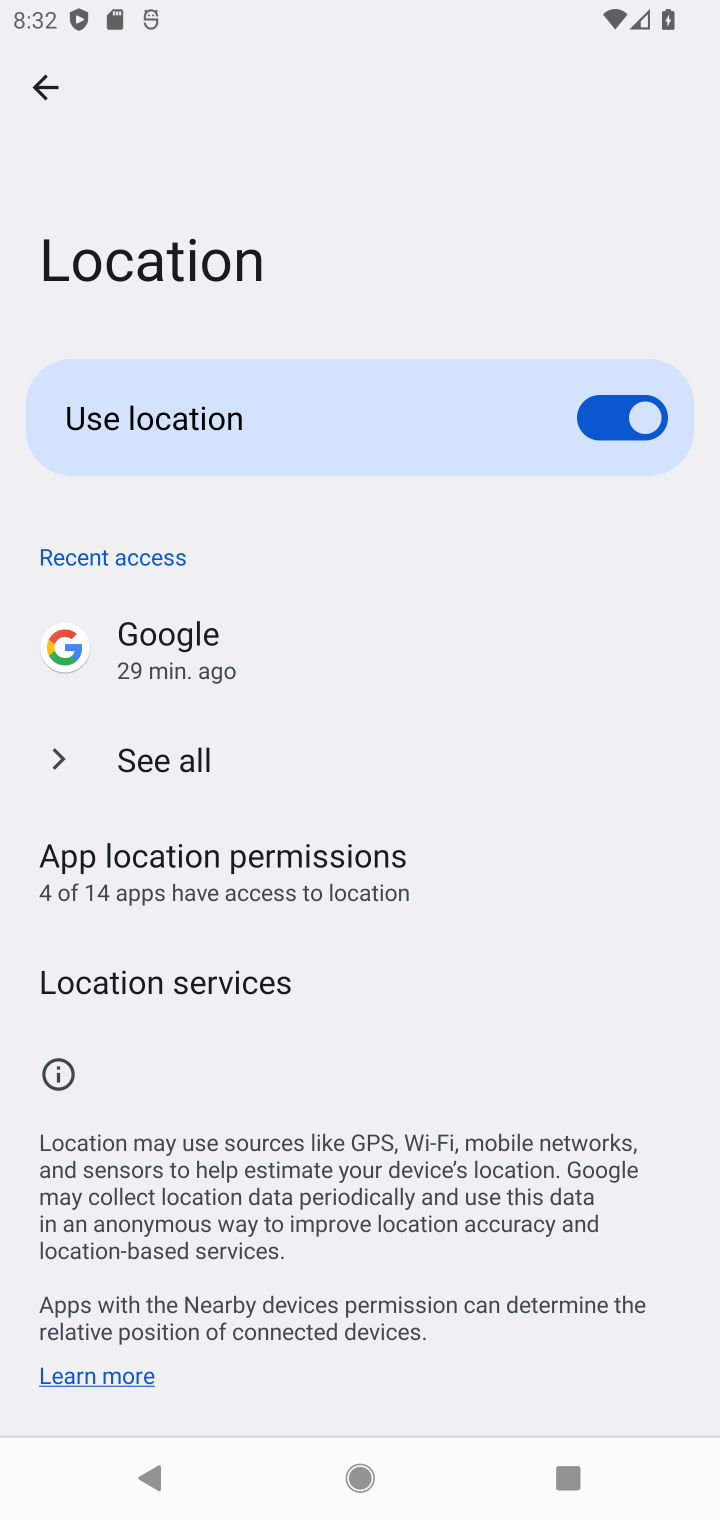
Step 28: click (306, 1020)
Your task to perform on an android device: turn off improve location accuracy Image 29: 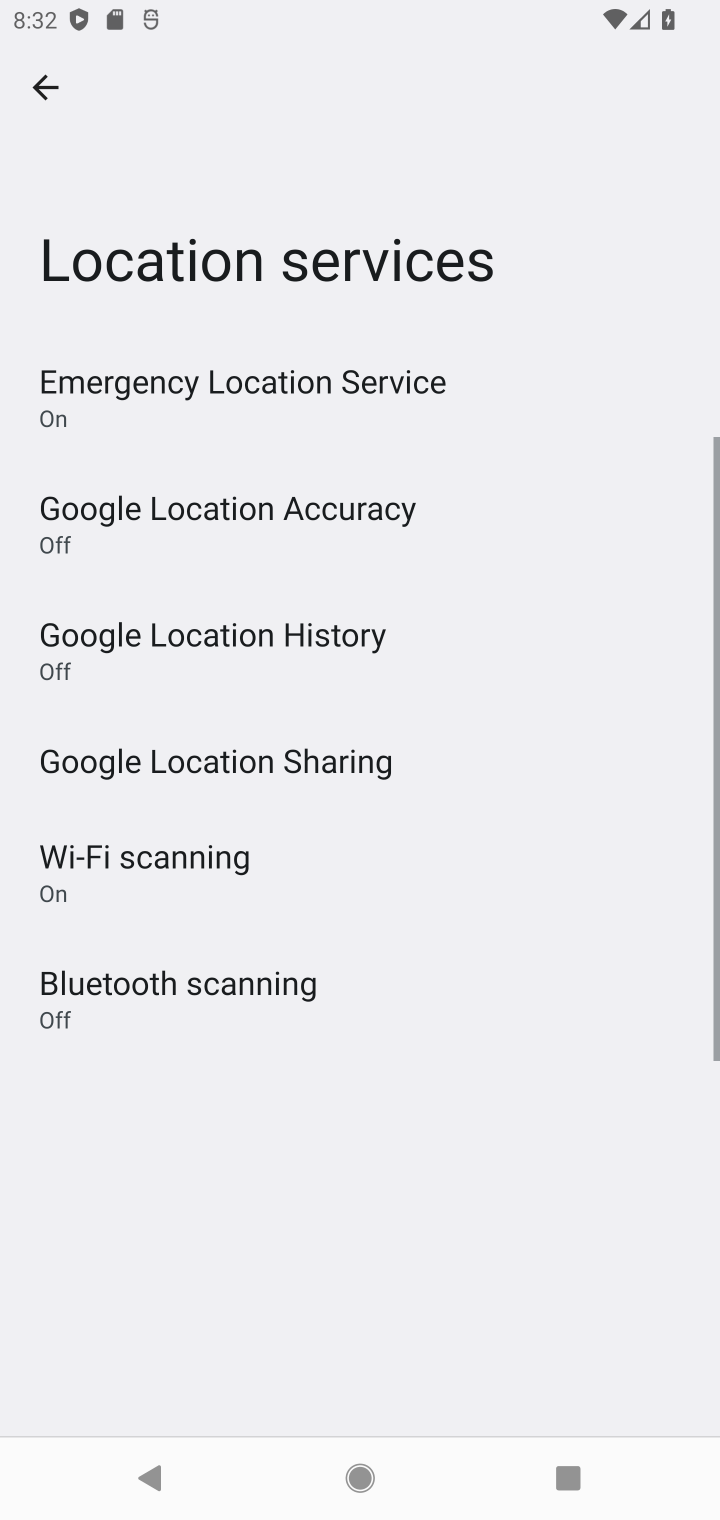
Step 29: click (391, 499)
Your task to perform on an android device: turn off improve location accuracy Image 30: 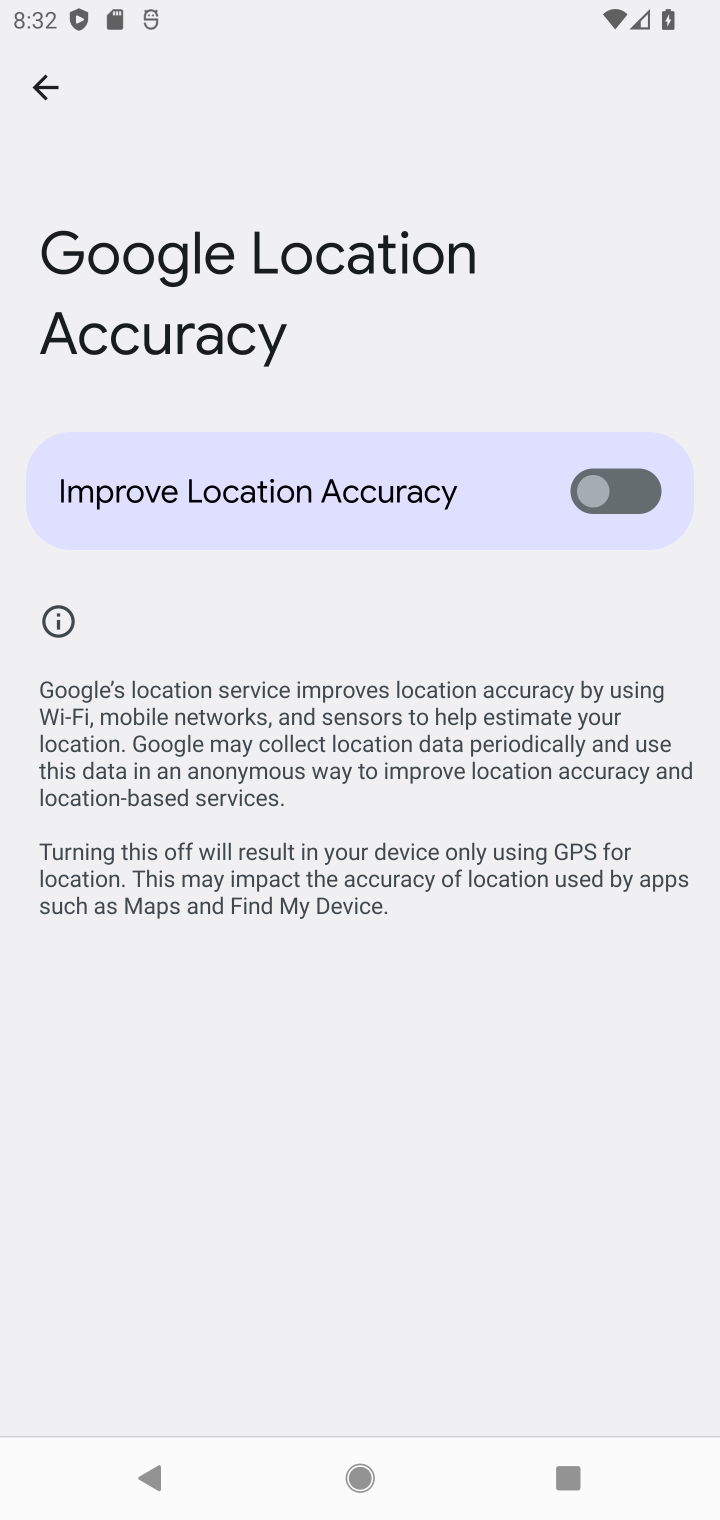
Step 30: task complete